Your task to perform on an android device: turn off priority inbox in the gmail app Image 0: 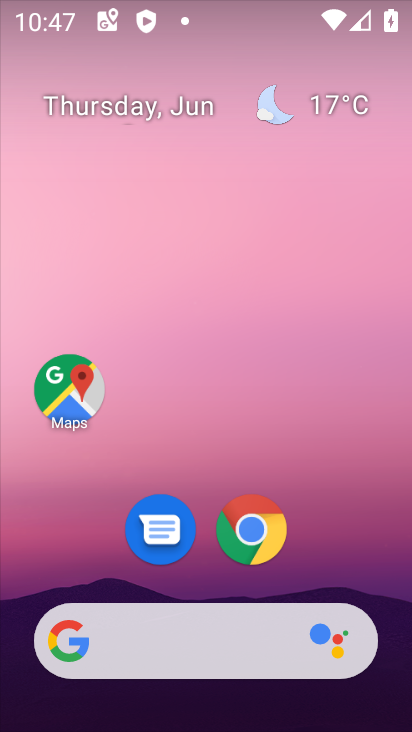
Step 0: drag from (326, 558) to (325, 98)
Your task to perform on an android device: turn off priority inbox in the gmail app Image 1: 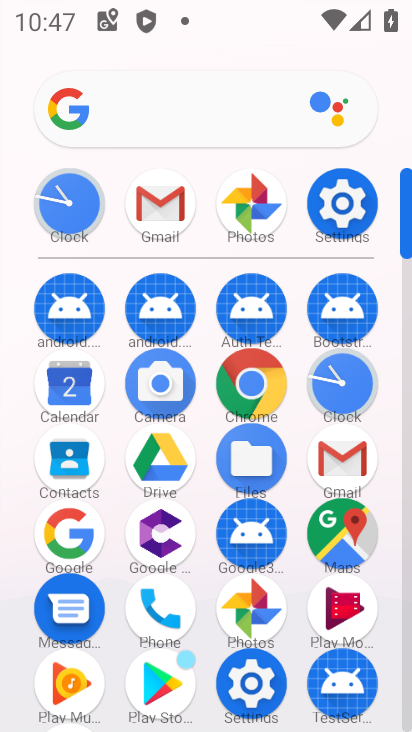
Step 1: click (333, 462)
Your task to perform on an android device: turn off priority inbox in the gmail app Image 2: 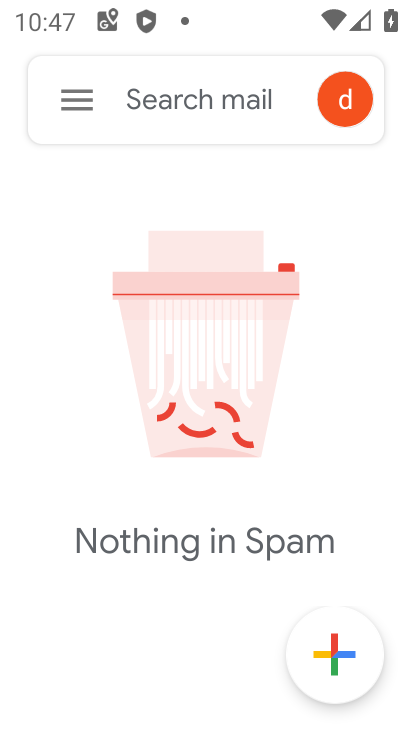
Step 2: click (74, 101)
Your task to perform on an android device: turn off priority inbox in the gmail app Image 3: 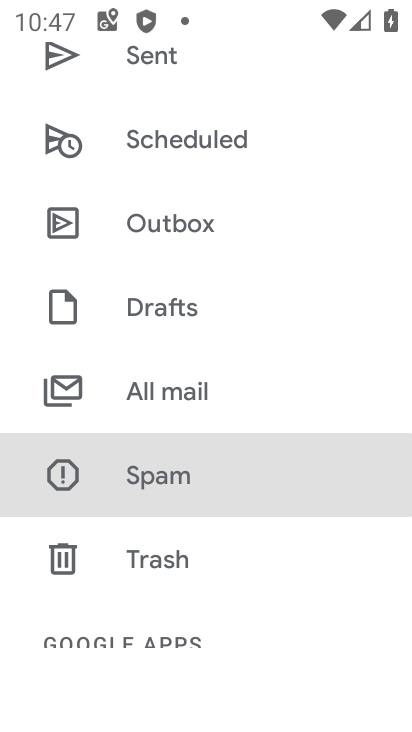
Step 3: drag from (158, 560) to (188, 285)
Your task to perform on an android device: turn off priority inbox in the gmail app Image 4: 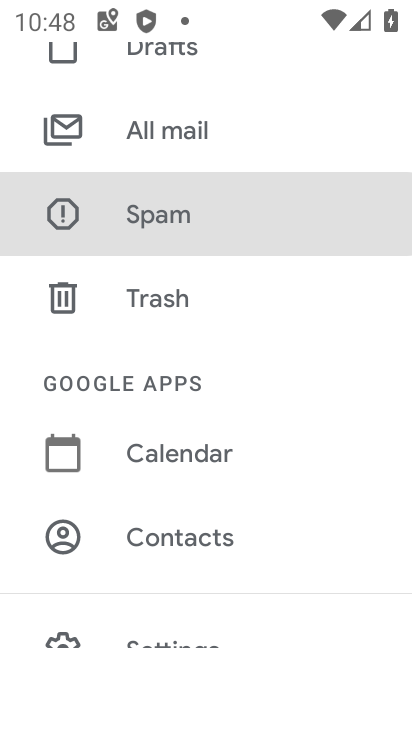
Step 4: drag from (237, 590) to (277, 254)
Your task to perform on an android device: turn off priority inbox in the gmail app Image 5: 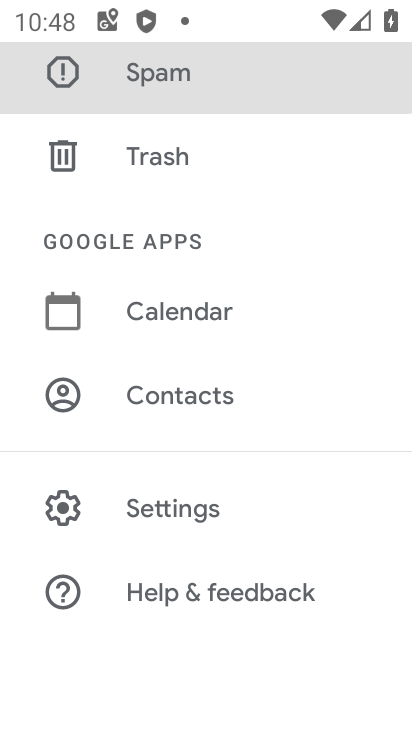
Step 5: click (228, 503)
Your task to perform on an android device: turn off priority inbox in the gmail app Image 6: 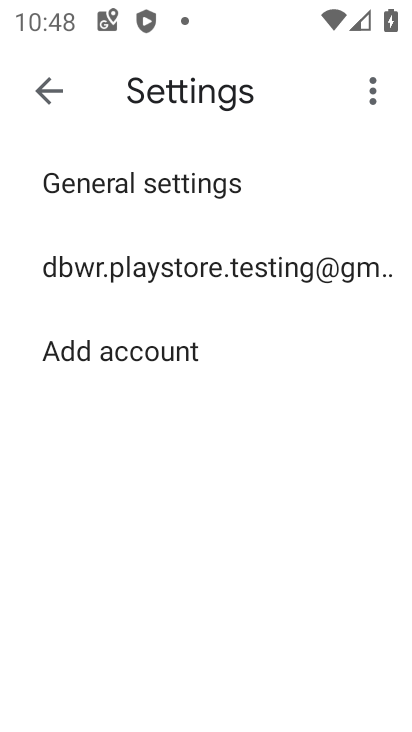
Step 6: click (248, 280)
Your task to perform on an android device: turn off priority inbox in the gmail app Image 7: 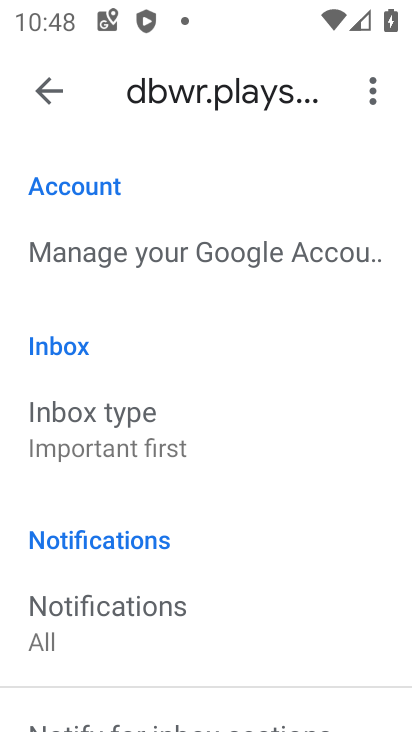
Step 7: click (153, 448)
Your task to perform on an android device: turn off priority inbox in the gmail app Image 8: 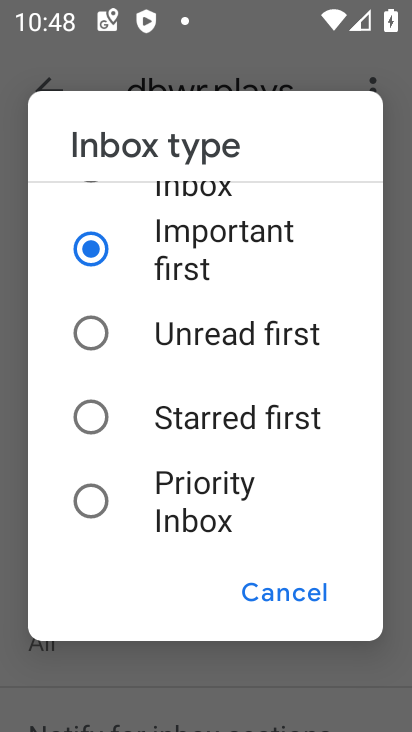
Step 8: drag from (153, 516) to (176, 581)
Your task to perform on an android device: turn off priority inbox in the gmail app Image 9: 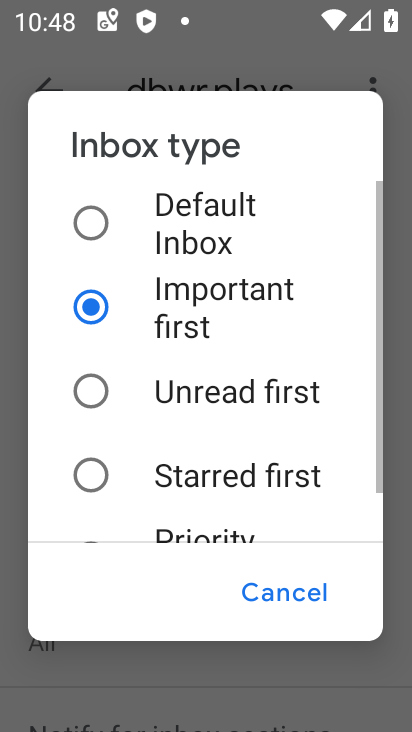
Step 9: click (193, 333)
Your task to perform on an android device: turn off priority inbox in the gmail app Image 10: 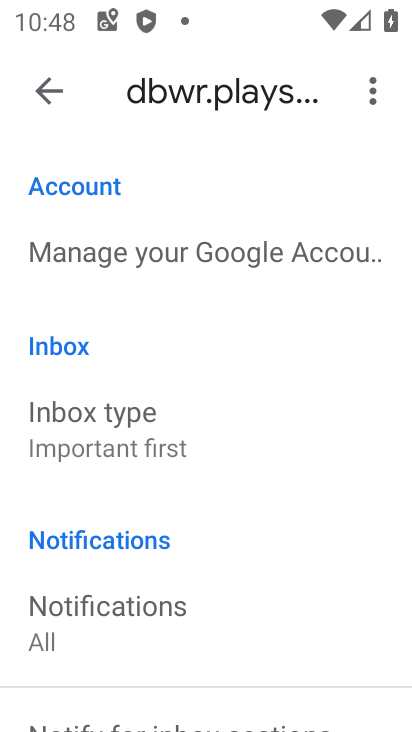
Step 10: task complete